Your task to perform on an android device: Open maps Image 0: 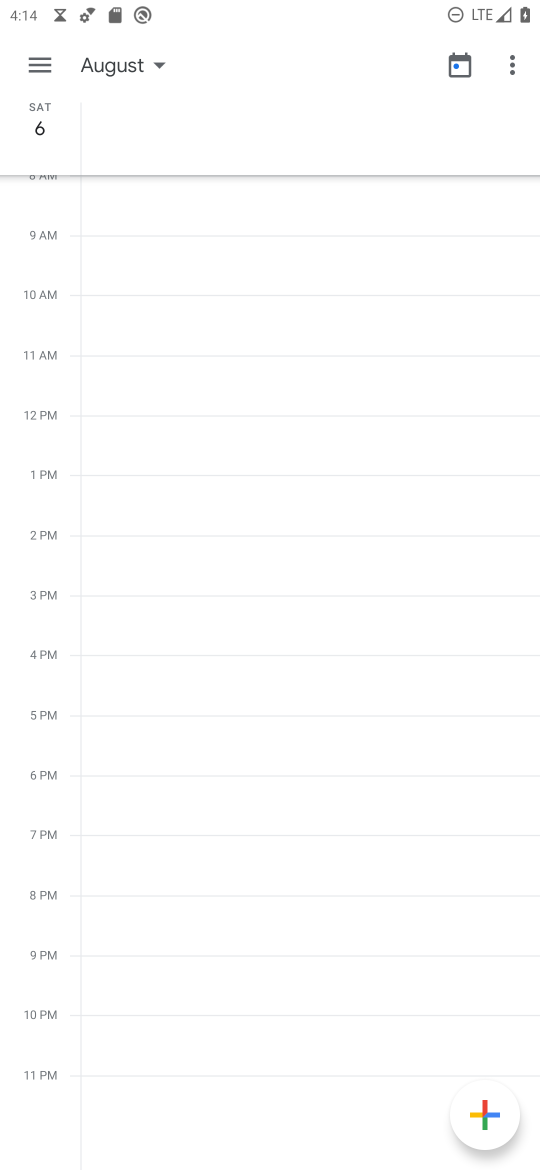
Step 0: press home button
Your task to perform on an android device: Open maps Image 1: 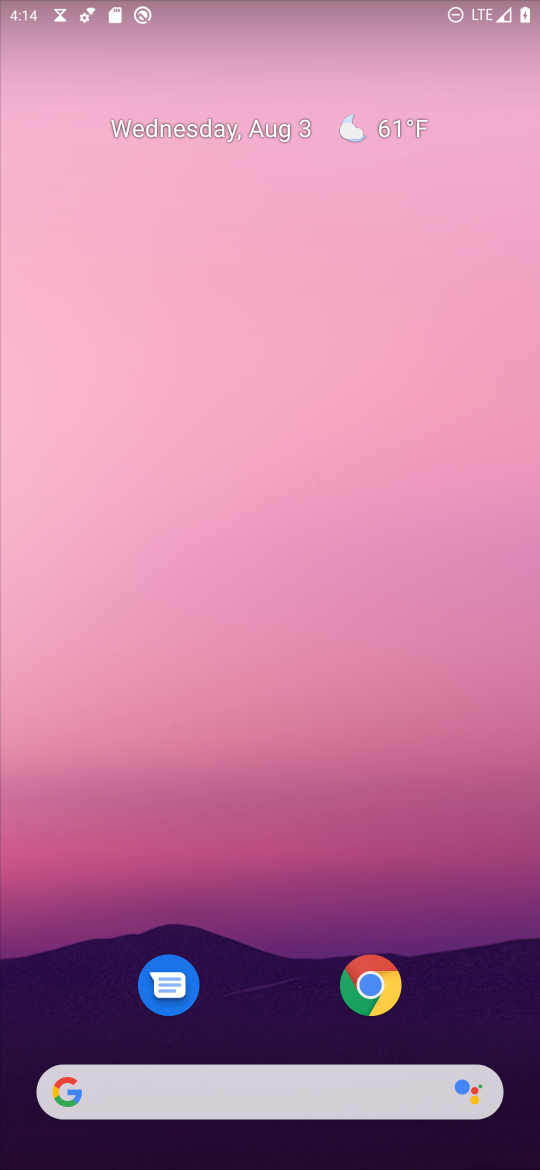
Step 1: drag from (279, 898) to (332, 46)
Your task to perform on an android device: Open maps Image 2: 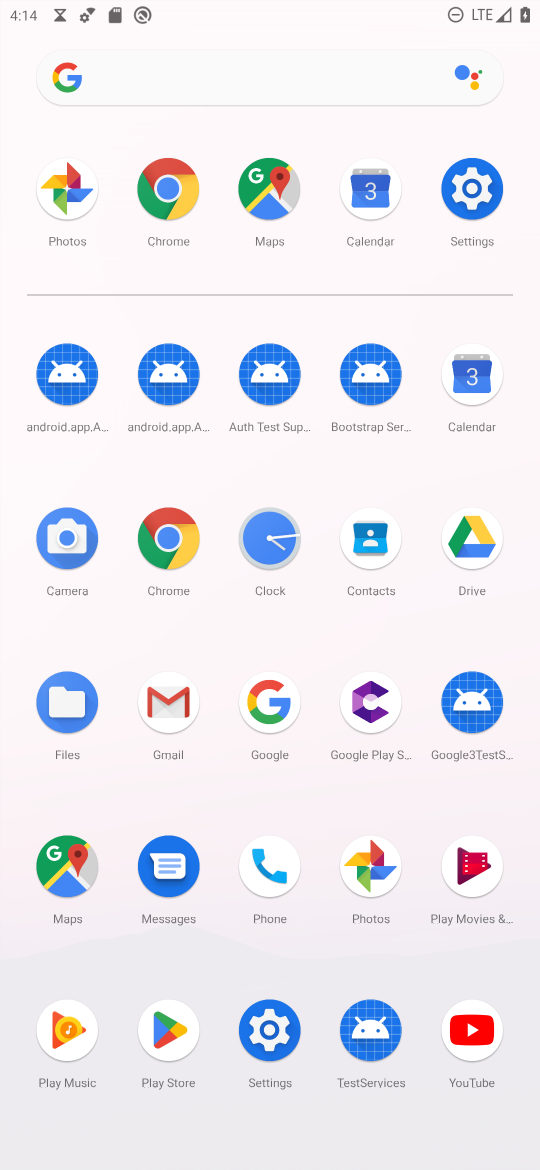
Step 2: click (264, 207)
Your task to perform on an android device: Open maps Image 3: 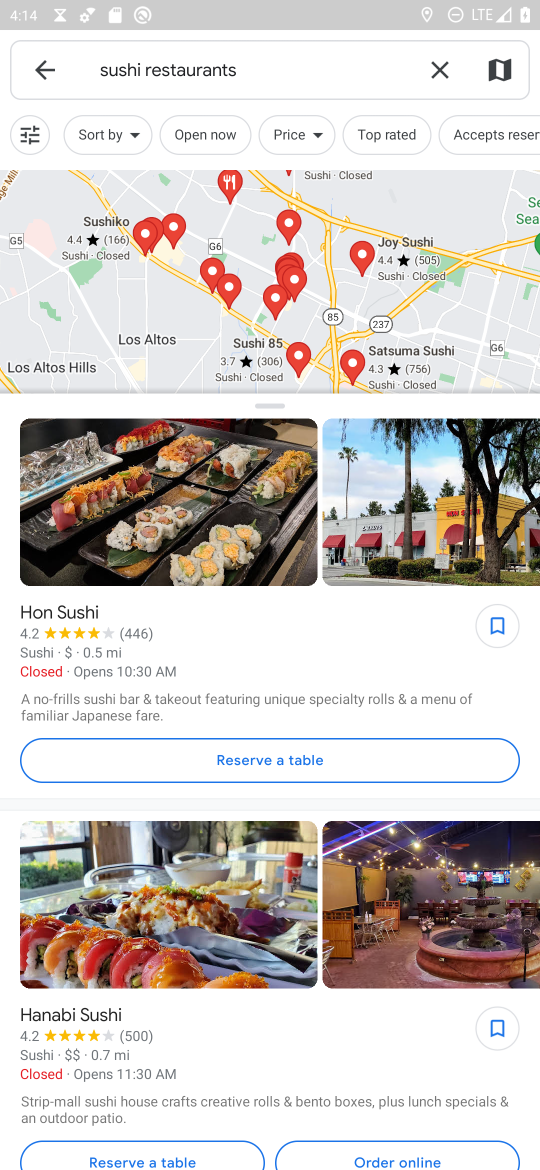
Step 3: task complete